Your task to perform on an android device: turn on translation in the chrome app Image 0: 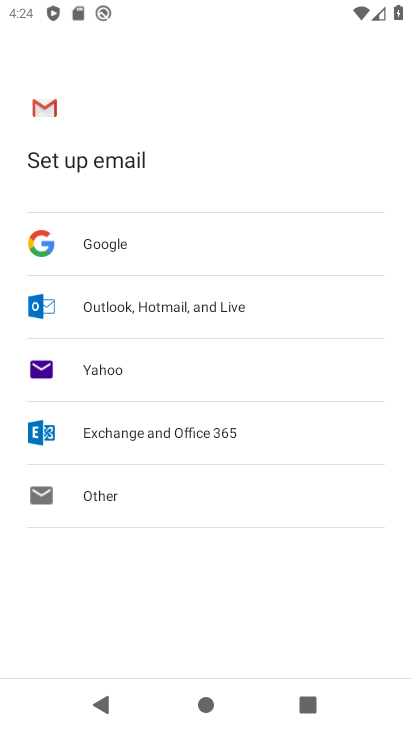
Step 0: press home button
Your task to perform on an android device: turn on translation in the chrome app Image 1: 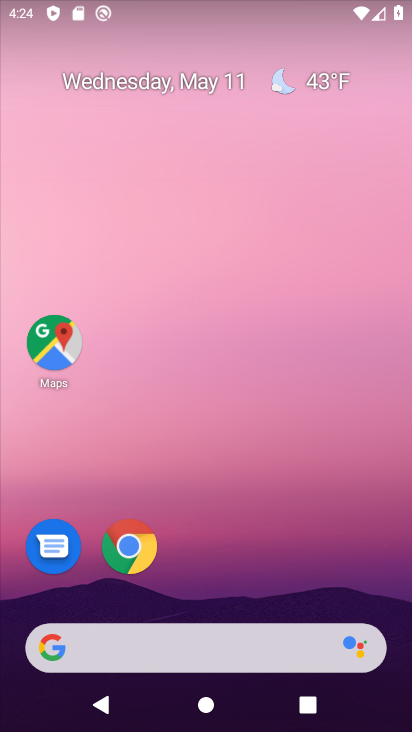
Step 1: click (127, 542)
Your task to perform on an android device: turn on translation in the chrome app Image 2: 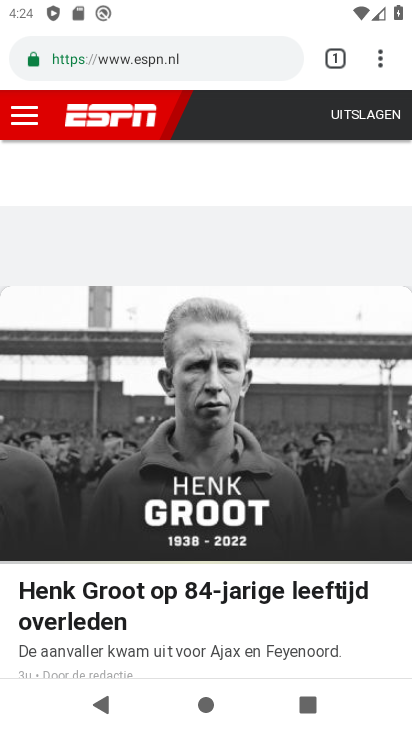
Step 2: click (382, 59)
Your task to perform on an android device: turn on translation in the chrome app Image 3: 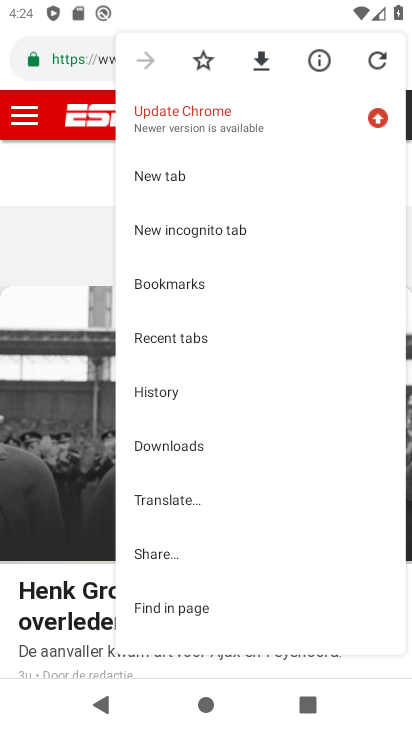
Step 3: drag from (216, 624) to (185, 276)
Your task to perform on an android device: turn on translation in the chrome app Image 4: 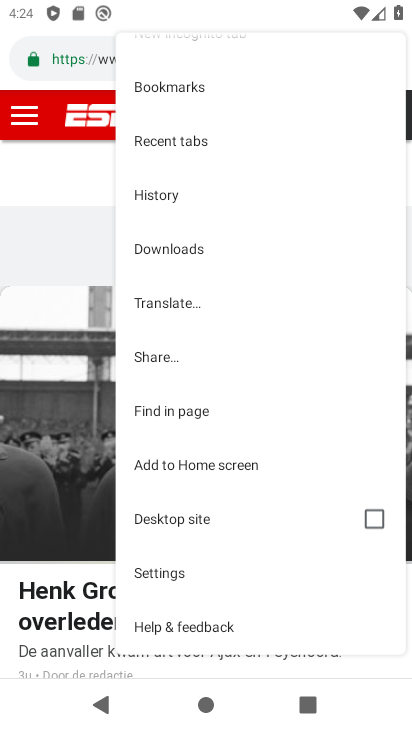
Step 4: click (175, 303)
Your task to perform on an android device: turn on translation in the chrome app Image 5: 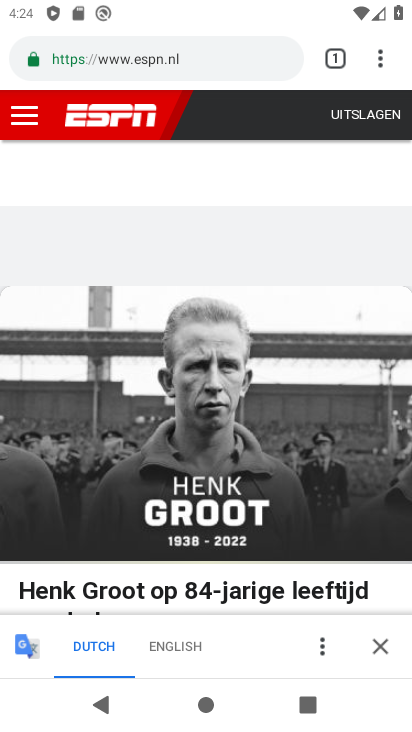
Step 5: click (377, 60)
Your task to perform on an android device: turn on translation in the chrome app Image 6: 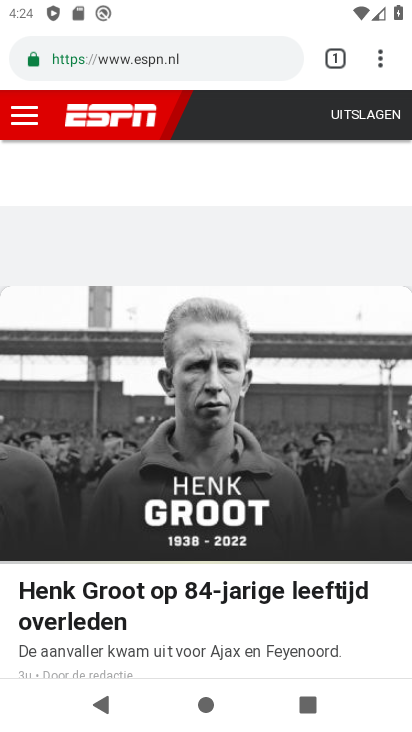
Step 6: click (383, 53)
Your task to perform on an android device: turn on translation in the chrome app Image 7: 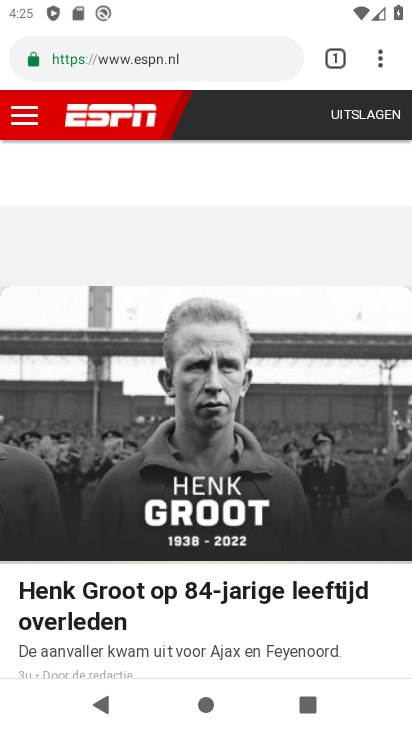
Step 7: click (380, 64)
Your task to perform on an android device: turn on translation in the chrome app Image 8: 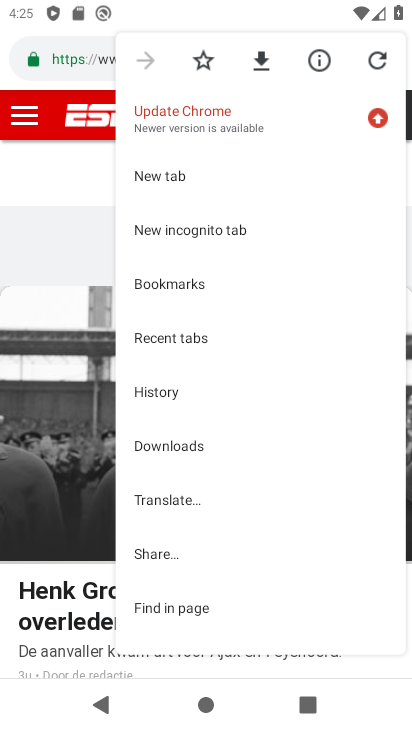
Step 8: drag from (212, 612) to (208, 341)
Your task to perform on an android device: turn on translation in the chrome app Image 9: 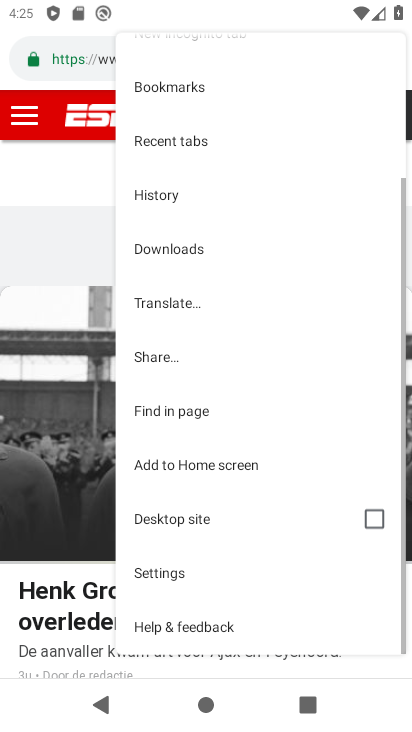
Step 9: click (160, 575)
Your task to perform on an android device: turn on translation in the chrome app Image 10: 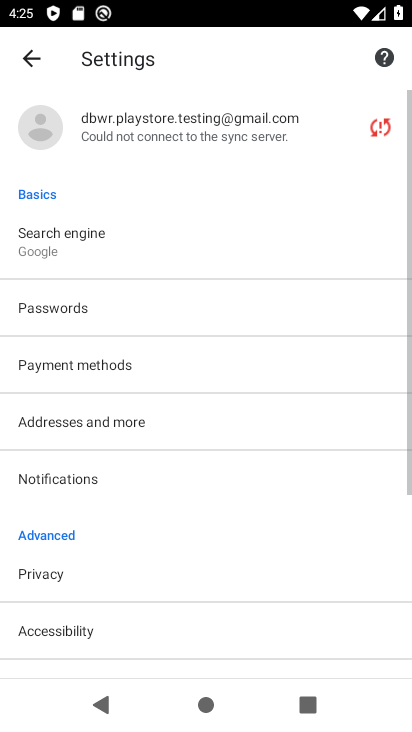
Step 10: drag from (131, 628) to (105, 279)
Your task to perform on an android device: turn on translation in the chrome app Image 11: 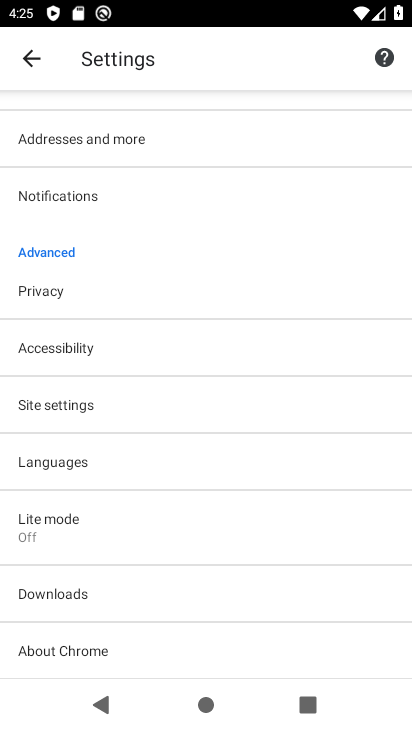
Step 11: click (64, 472)
Your task to perform on an android device: turn on translation in the chrome app Image 12: 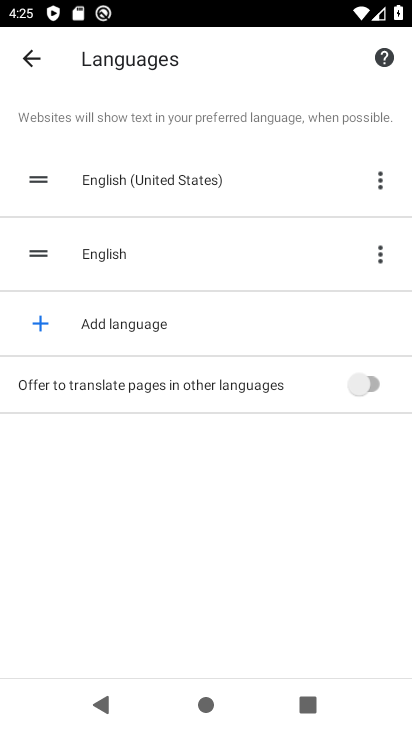
Step 12: click (371, 384)
Your task to perform on an android device: turn on translation in the chrome app Image 13: 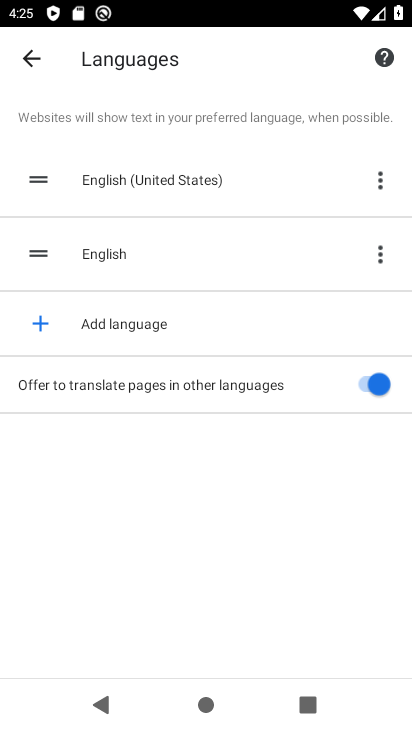
Step 13: task complete